Your task to perform on an android device: turn on data saver in the chrome app Image 0: 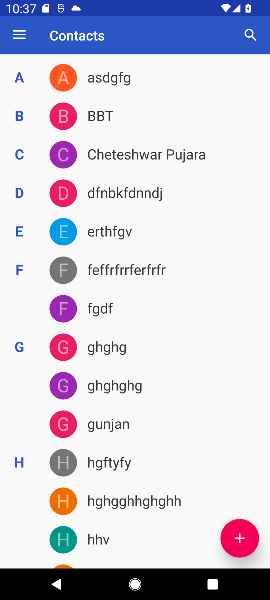
Step 0: press home button
Your task to perform on an android device: turn on data saver in the chrome app Image 1: 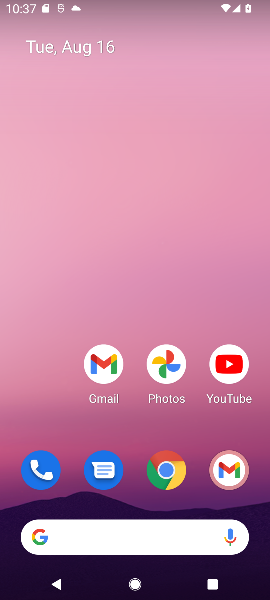
Step 1: click (167, 465)
Your task to perform on an android device: turn on data saver in the chrome app Image 2: 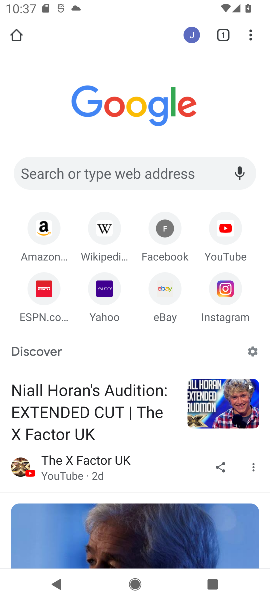
Step 2: click (250, 35)
Your task to perform on an android device: turn on data saver in the chrome app Image 3: 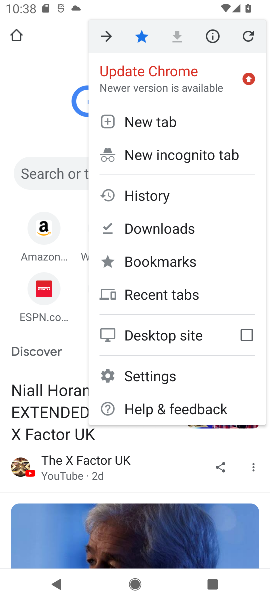
Step 3: click (168, 375)
Your task to perform on an android device: turn on data saver in the chrome app Image 4: 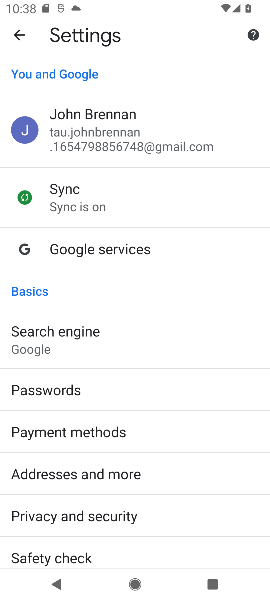
Step 4: drag from (134, 506) to (129, 0)
Your task to perform on an android device: turn on data saver in the chrome app Image 5: 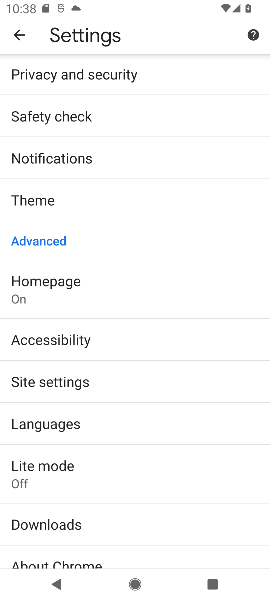
Step 5: click (72, 460)
Your task to perform on an android device: turn on data saver in the chrome app Image 6: 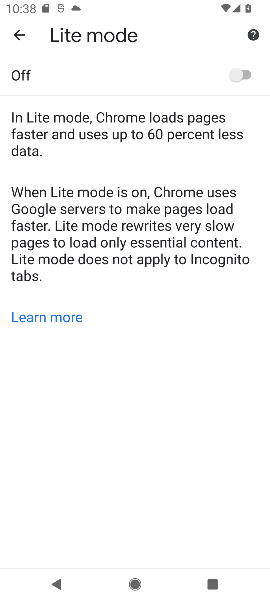
Step 6: click (242, 65)
Your task to perform on an android device: turn on data saver in the chrome app Image 7: 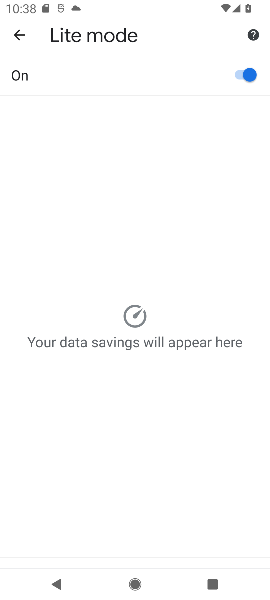
Step 7: task complete